Your task to perform on an android device: Go to notification settings Image 0: 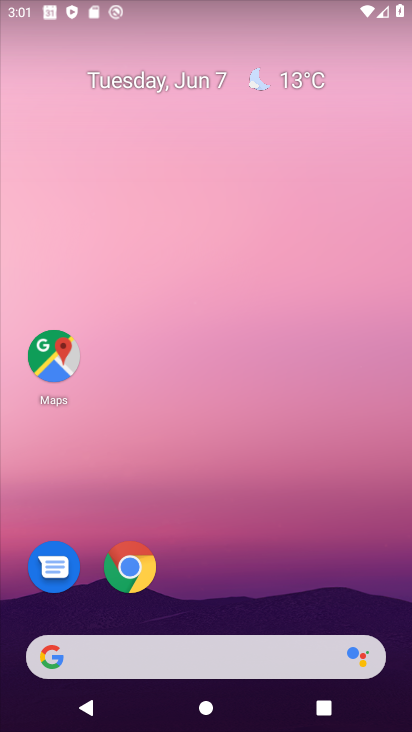
Step 0: drag from (323, 185) to (323, 125)
Your task to perform on an android device: Go to notification settings Image 1: 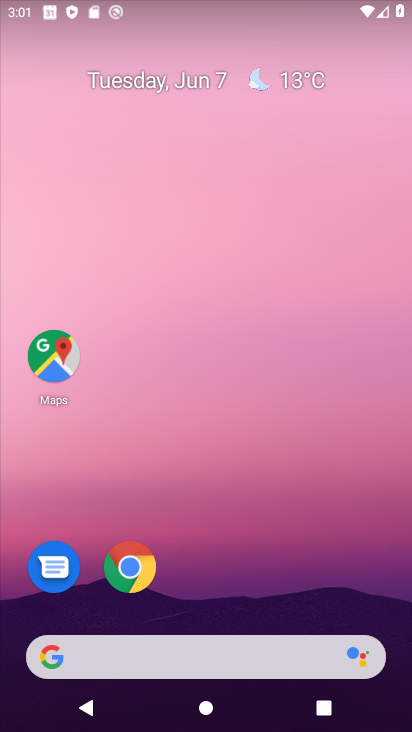
Step 1: drag from (237, 510) to (320, 17)
Your task to perform on an android device: Go to notification settings Image 2: 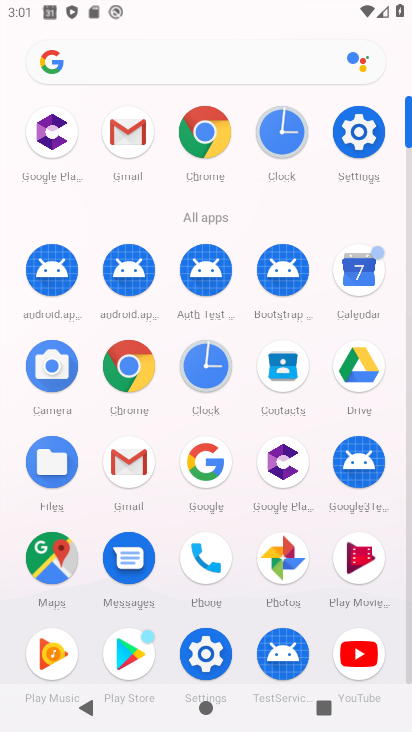
Step 2: click (355, 125)
Your task to perform on an android device: Go to notification settings Image 3: 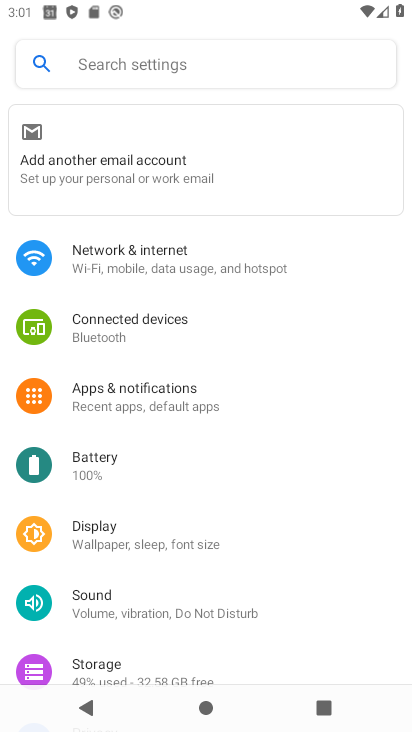
Step 3: click (148, 408)
Your task to perform on an android device: Go to notification settings Image 4: 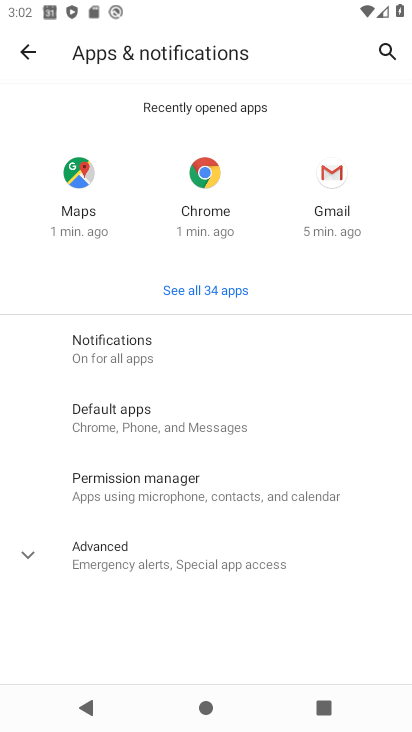
Step 4: click (124, 349)
Your task to perform on an android device: Go to notification settings Image 5: 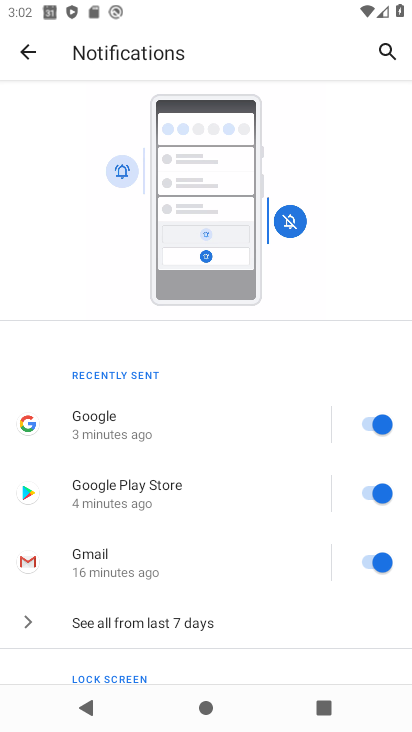
Step 5: task complete